Your task to perform on an android device: turn off smart reply in the gmail app Image 0: 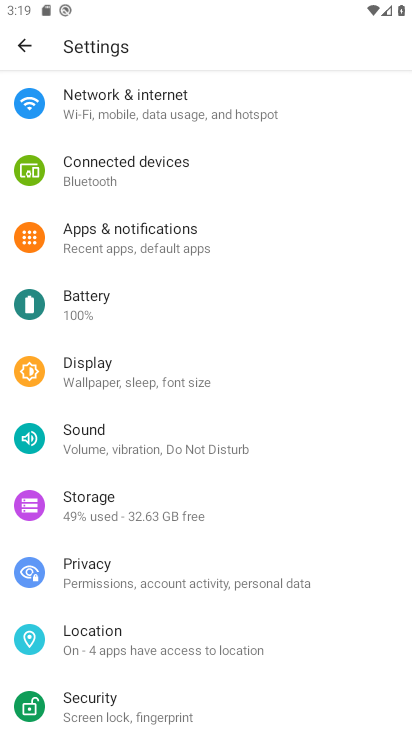
Step 0: press home button
Your task to perform on an android device: turn off smart reply in the gmail app Image 1: 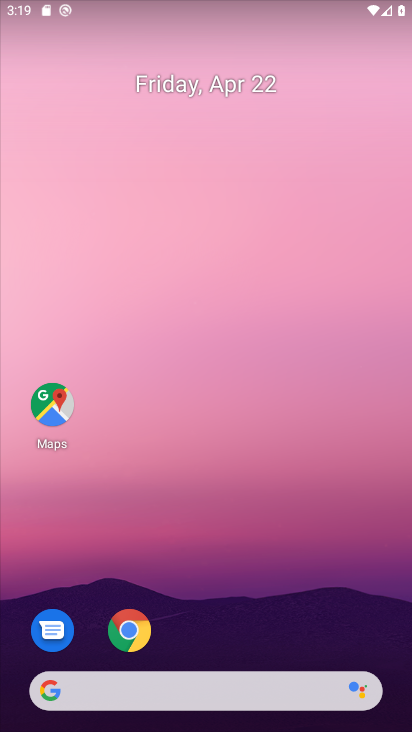
Step 1: drag from (248, 548) to (279, 69)
Your task to perform on an android device: turn off smart reply in the gmail app Image 2: 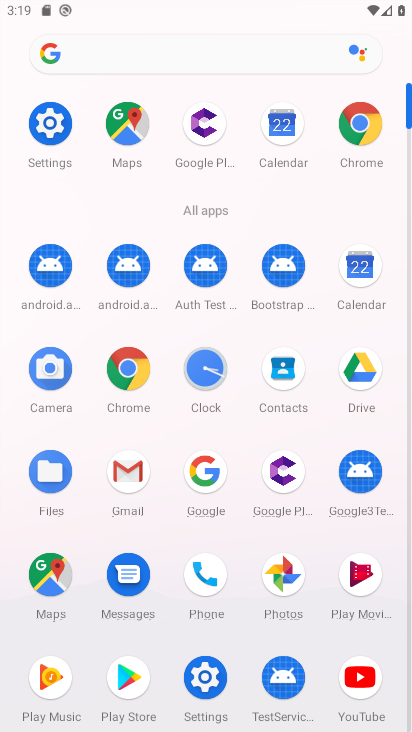
Step 2: click (116, 468)
Your task to perform on an android device: turn off smart reply in the gmail app Image 3: 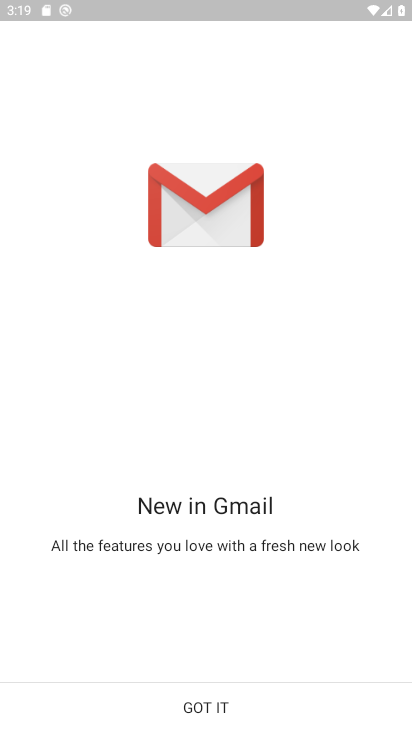
Step 3: click (171, 707)
Your task to perform on an android device: turn off smart reply in the gmail app Image 4: 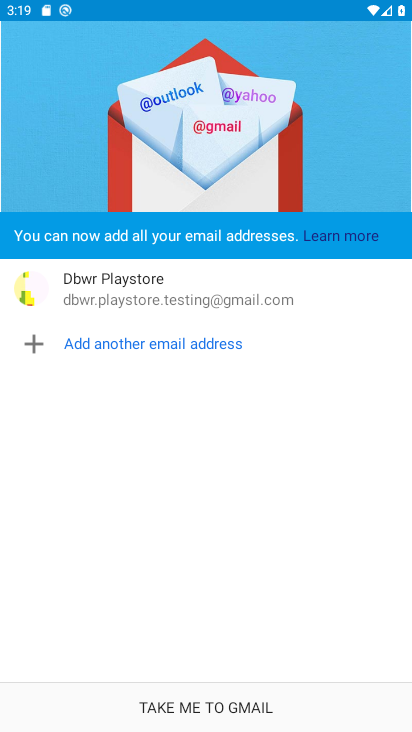
Step 4: click (177, 701)
Your task to perform on an android device: turn off smart reply in the gmail app Image 5: 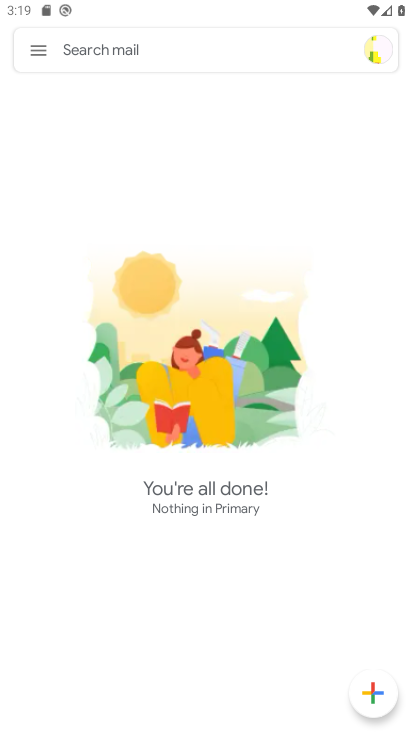
Step 5: click (36, 54)
Your task to perform on an android device: turn off smart reply in the gmail app Image 6: 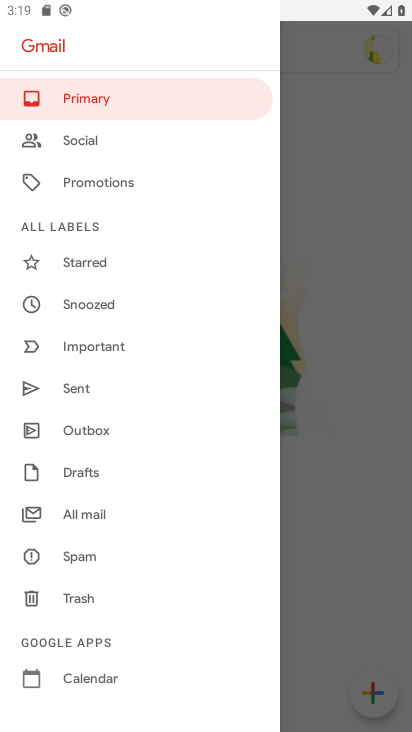
Step 6: drag from (104, 634) to (179, 240)
Your task to perform on an android device: turn off smart reply in the gmail app Image 7: 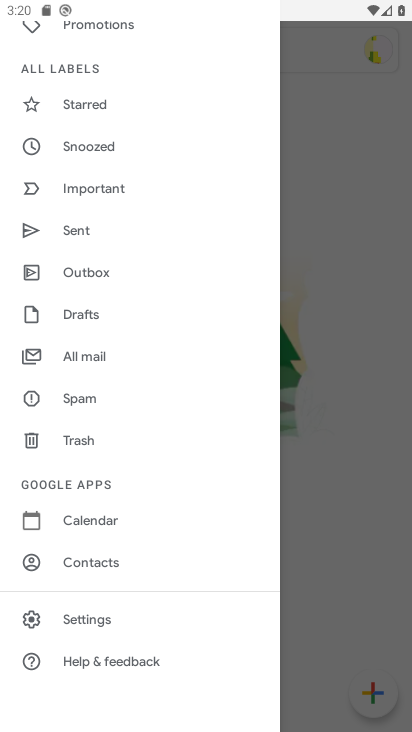
Step 7: click (130, 612)
Your task to perform on an android device: turn off smart reply in the gmail app Image 8: 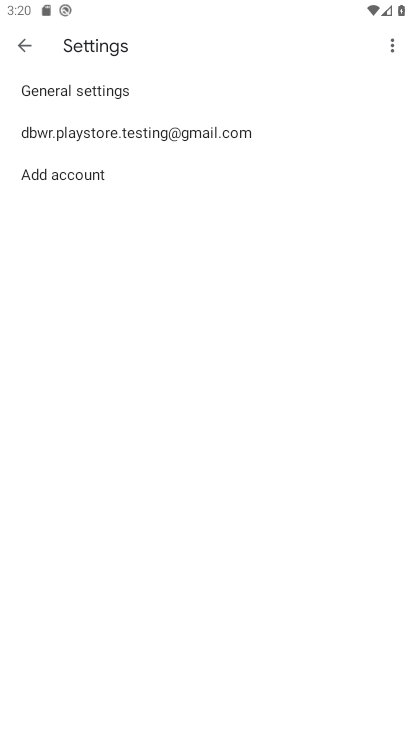
Step 8: click (56, 129)
Your task to perform on an android device: turn off smart reply in the gmail app Image 9: 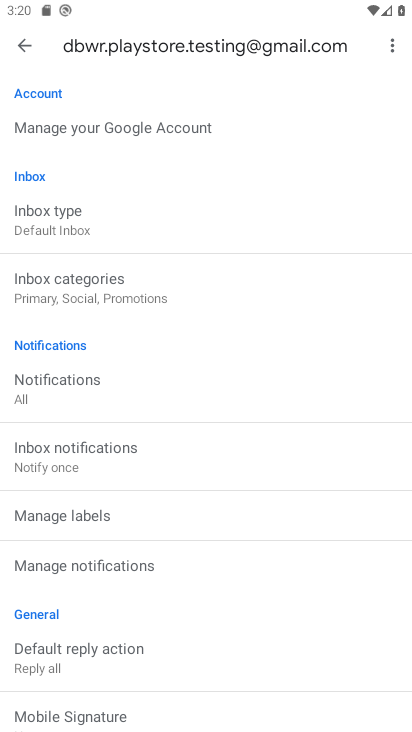
Step 9: drag from (157, 679) to (164, 278)
Your task to perform on an android device: turn off smart reply in the gmail app Image 10: 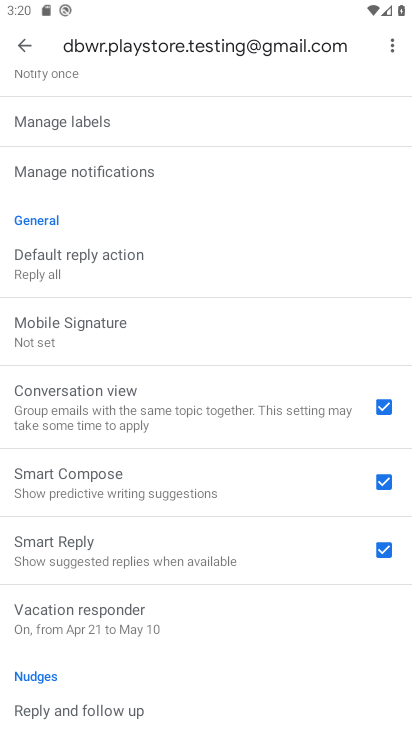
Step 10: click (280, 534)
Your task to perform on an android device: turn off smart reply in the gmail app Image 11: 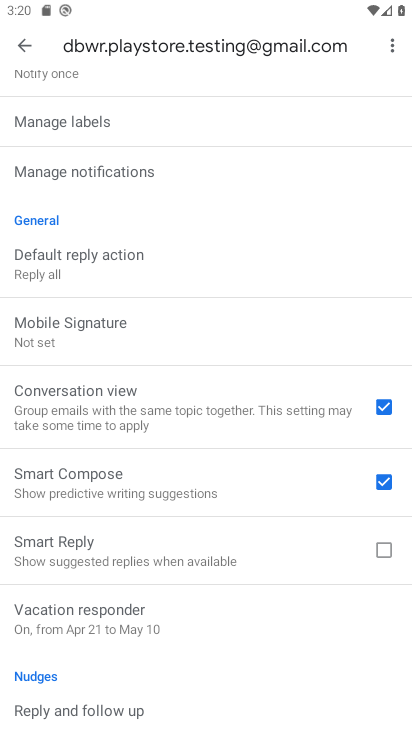
Step 11: task complete